Your task to perform on an android device: Is it going to rain today? Image 0: 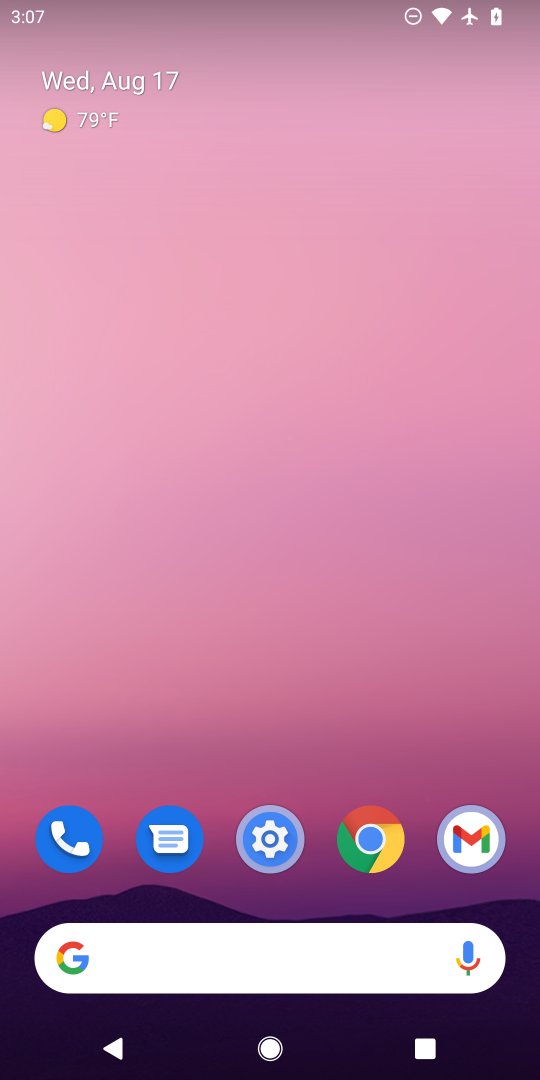
Step 0: drag from (317, 900) to (293, 39)
Your task to perform on an android device: Is it going to rain today? Image 1: 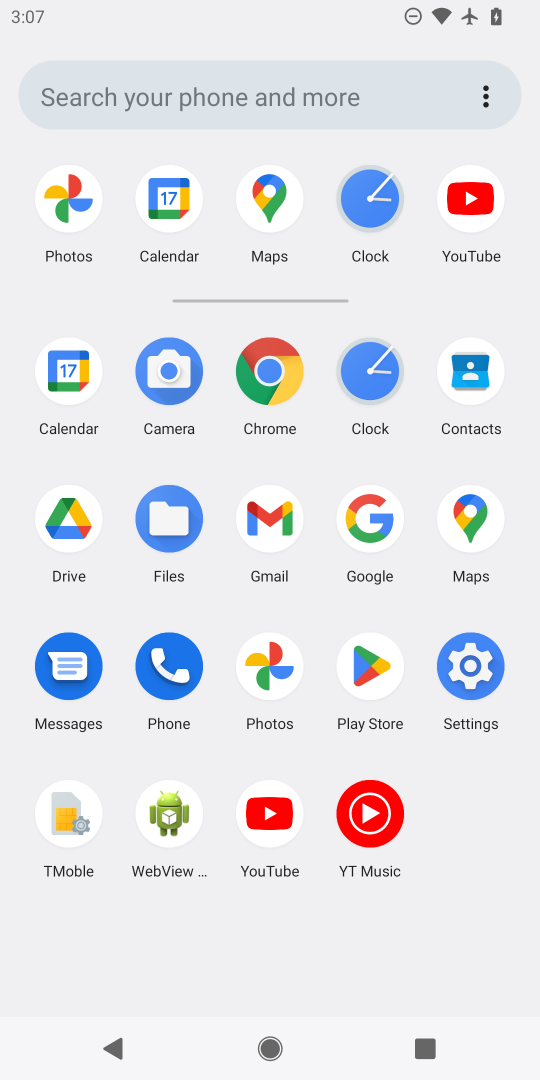
Step 1: click (366, 522)
Your task to perform on an android device: Is it going to rain today? Image 2: 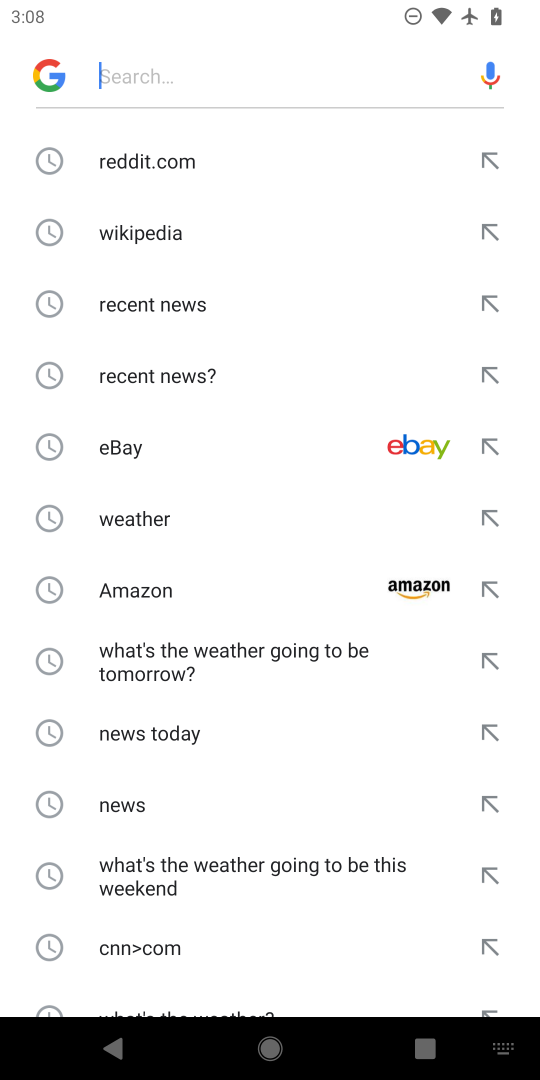
Step 2: click (130, 521)
Your task to perform on an android device: Is it going to rain today? Image 3: 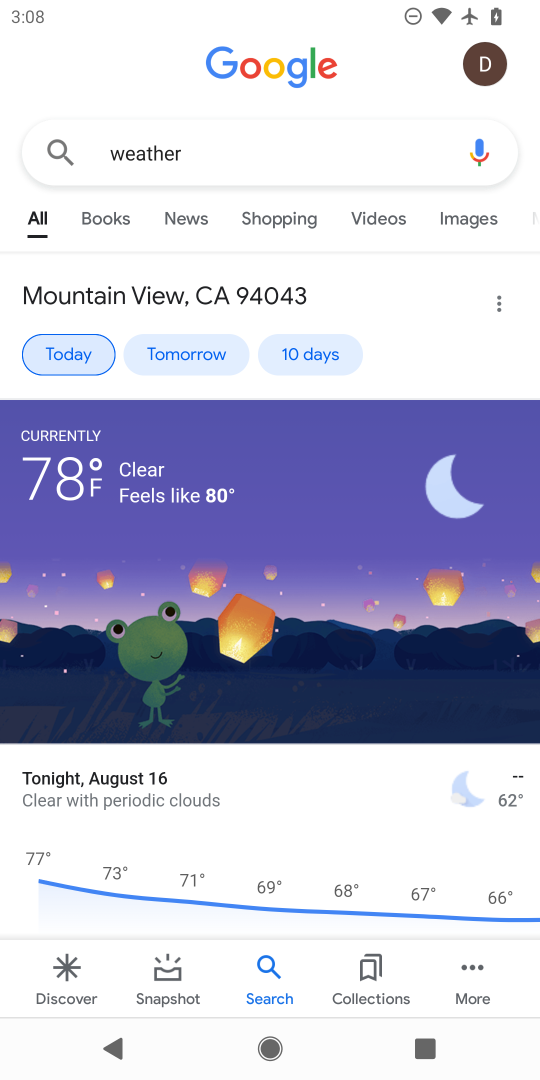
Step 3: click (69, 365)
Your task to perform on an android device: Is it going to rain today? Image 4: 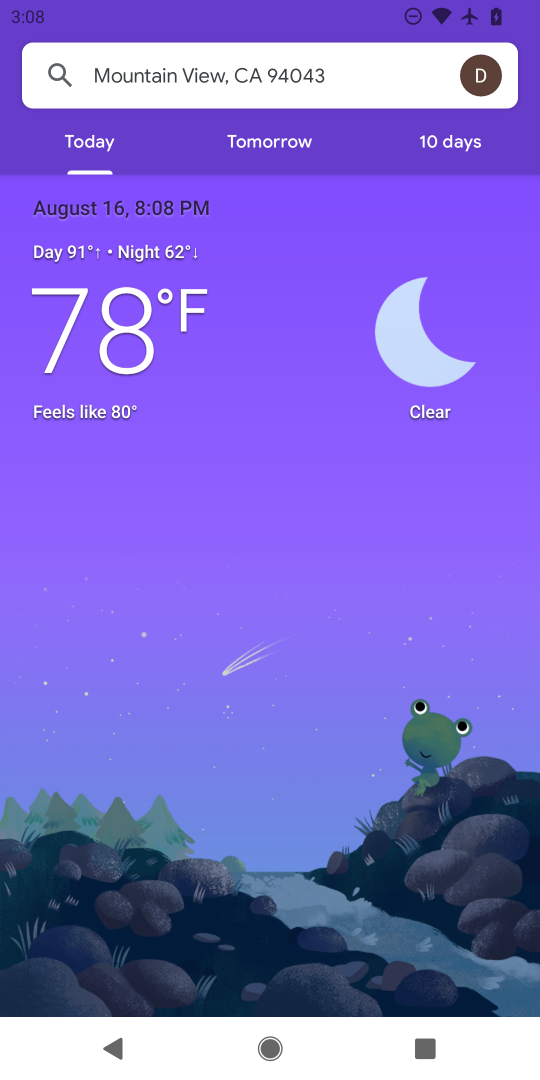
Step 4: task complete